Your task to perform on an android device: Open Wikipedia Image 0: 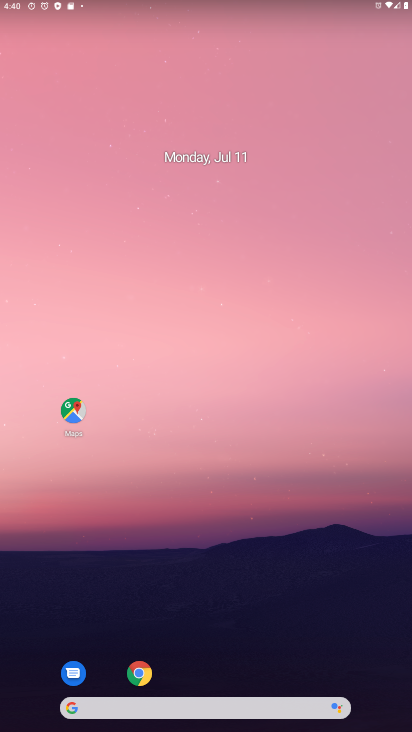
Step 0: drag from (281, 599) to (228, 107)
Your task to perform on an android device: Open Wikipedia Image 1: 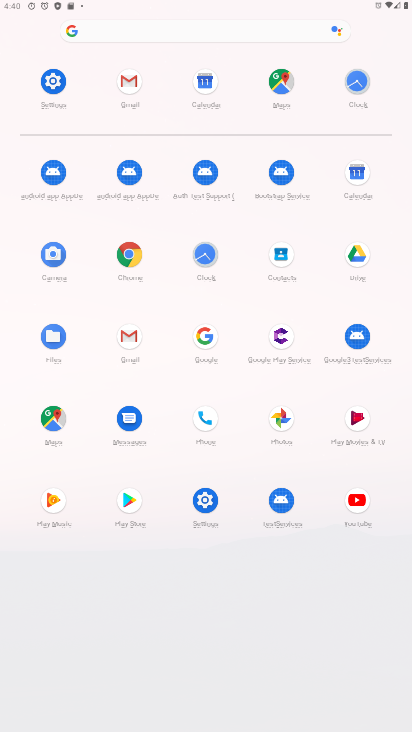
Step 1: click (135, 248)
Your task to perform on an android device: Open Wikipedia Image 2: 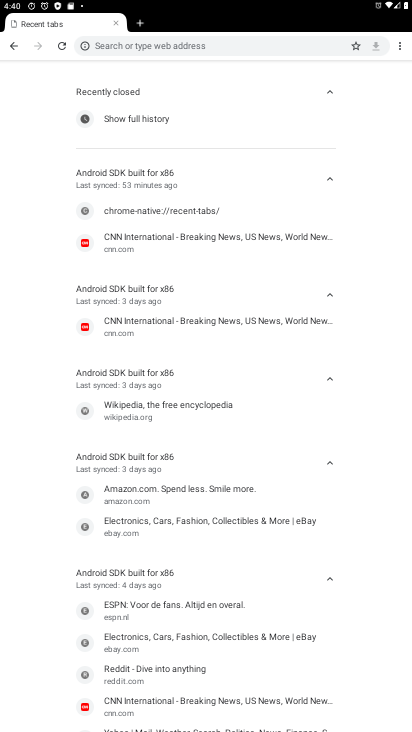
Step 2: click (12, 46)
Your task to perform on an android device: Open Wikipedia Image 3: 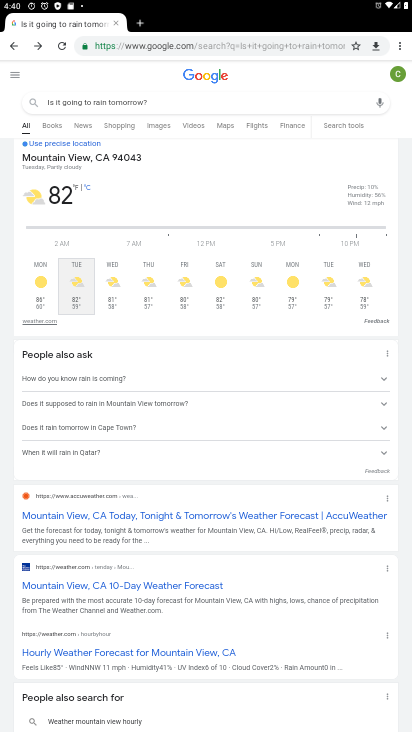
Step 3: drag from (399, 46) to (302, 44)
Your task to perform on an android device: Open Wikipedia Image 4: 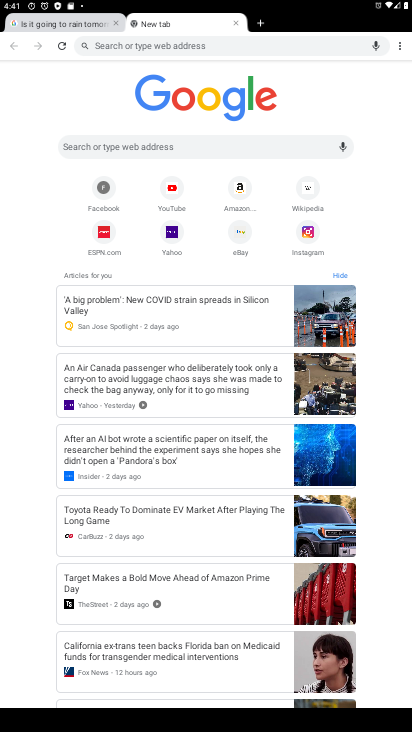
Step 4: click (298, 188)
Your task to perform on an android device: Open Wikipedia Image 5: 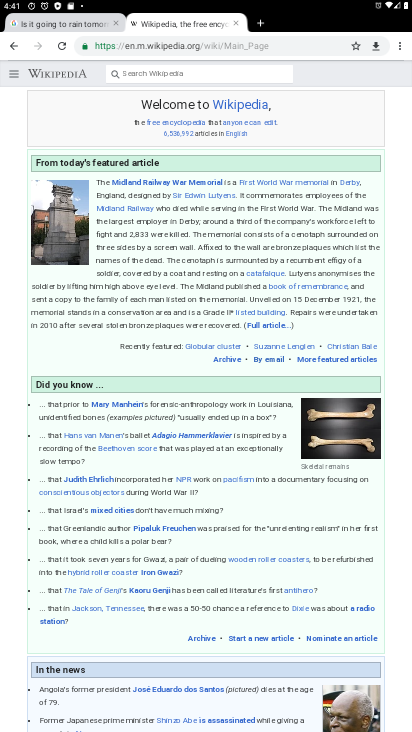
Step 5: task complete